Your task to perform on an android device: snooze an email in the gmail app Image 0: 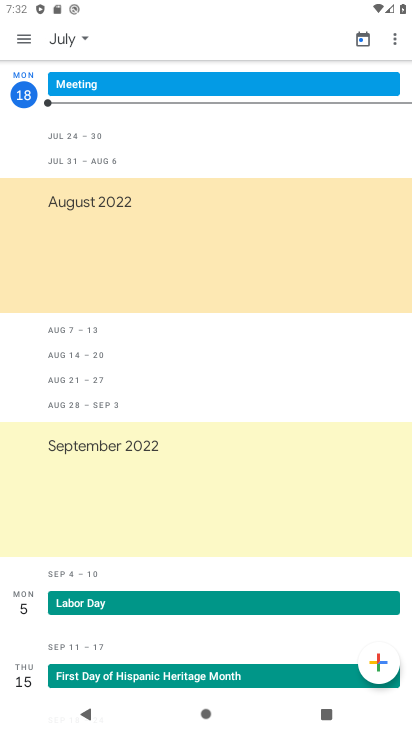
Step 0: press home button
Your task to perform on an android device: snooze an email in the gmail app Image 1: 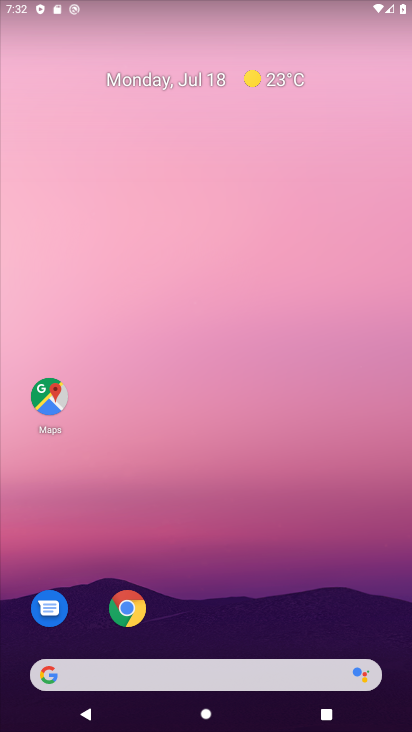
Step 1: drag from (274, 601) to (328, 145)
Your task to perform on an android device: snooze an email in the gmail app Image 2: 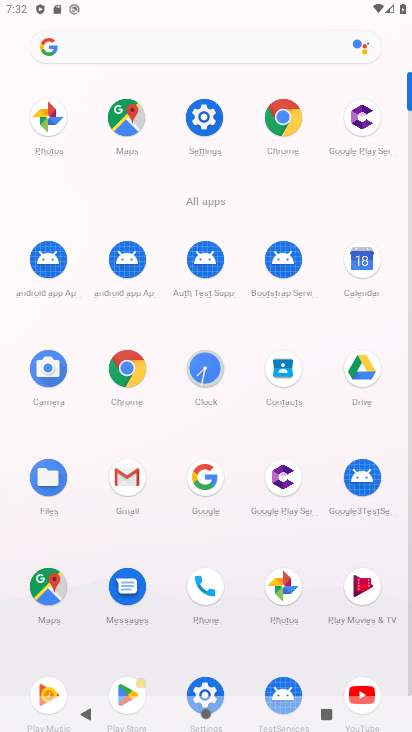
Step 2: click (138, 488)
Your task to perform on an android device: snooze an email in the gmail app Image 3: 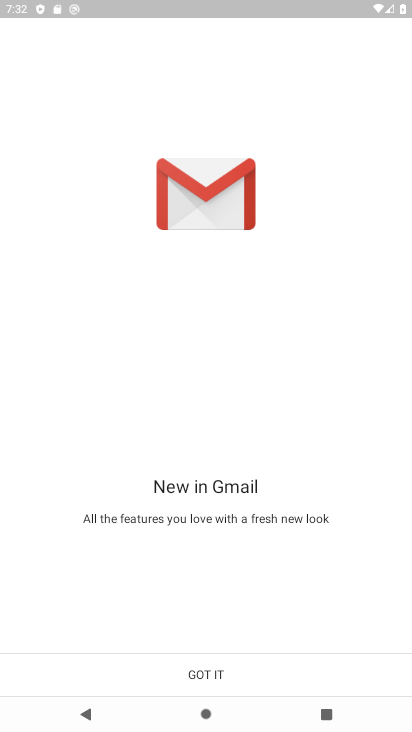
Step 3: click (221, 678)
Your task to perform on an android device: snooze an email in the gmail app Image 4: 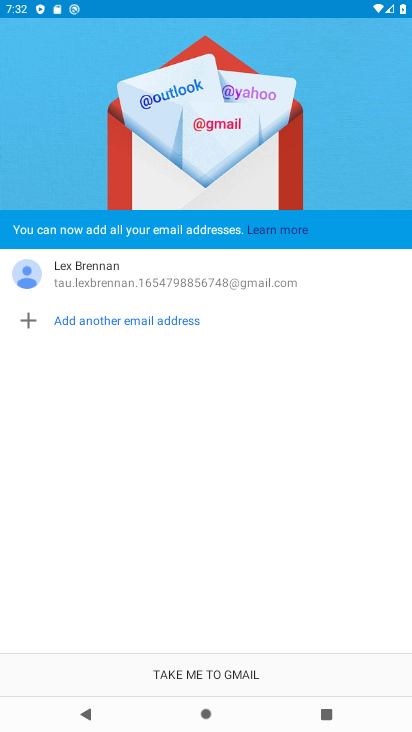
Step 4: click (256, 676)
Your task to perform on an android device: snooze an email in the gmail app Image 5: 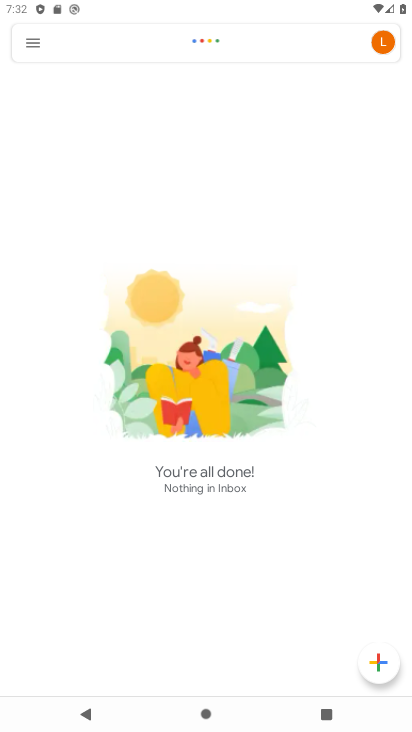
Step 5: click (36, 46)
Your task to perform on an android device: snooze an email in the gmail app Image 6: 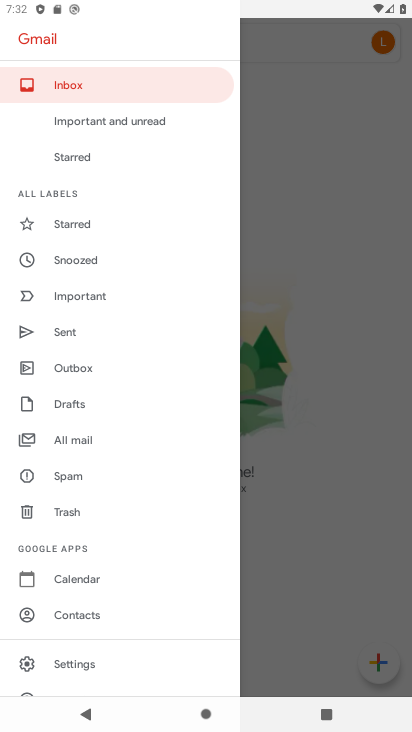
Step 6: click (114, 439)
Your task to perform on an android device: snooze an email in the gmail app Image 7: 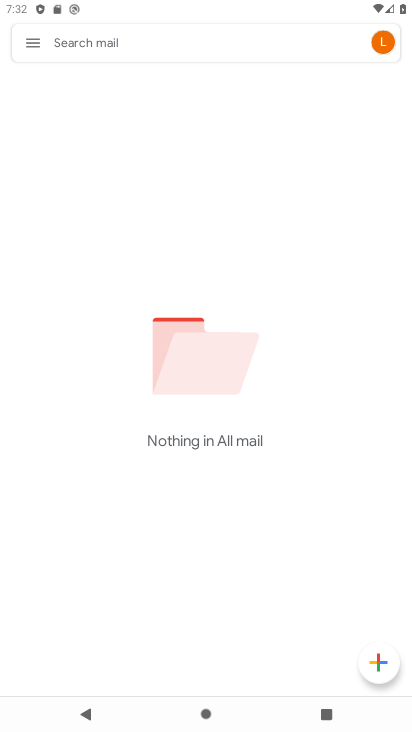
Step 7: task complete